Your task to perform on an android device: Open calendar and show me the third week of next month Image 0: 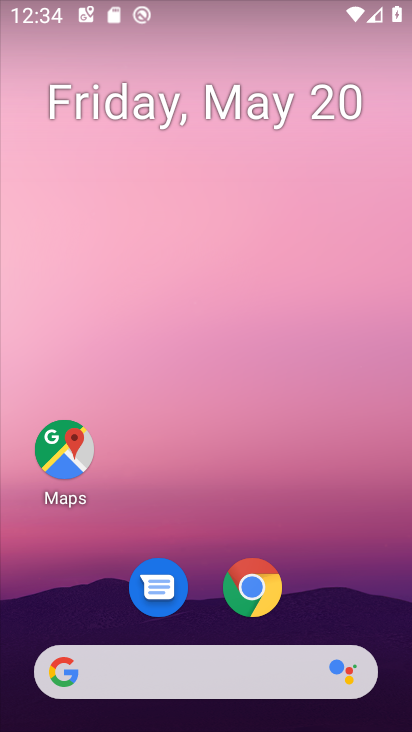
Step 0: drag from (367, 601) to (365, 219)
Your task to perform on an android device: Open calendar and show me the third week of next month Image 1: 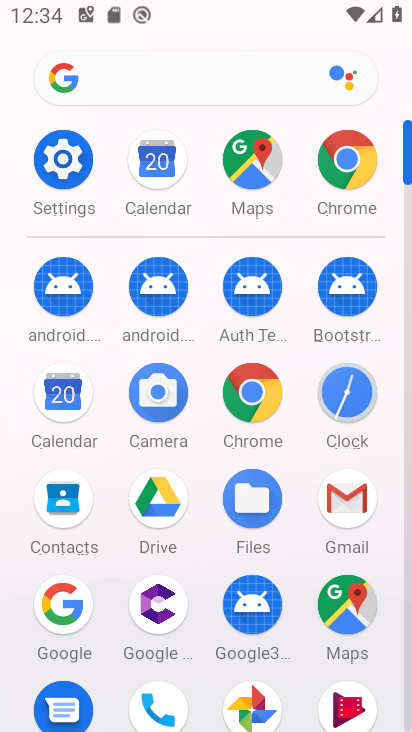
Step 1: click (51, 410)
Your task to perform on an android device: Open calendar and show me the third week of next month Image 2: 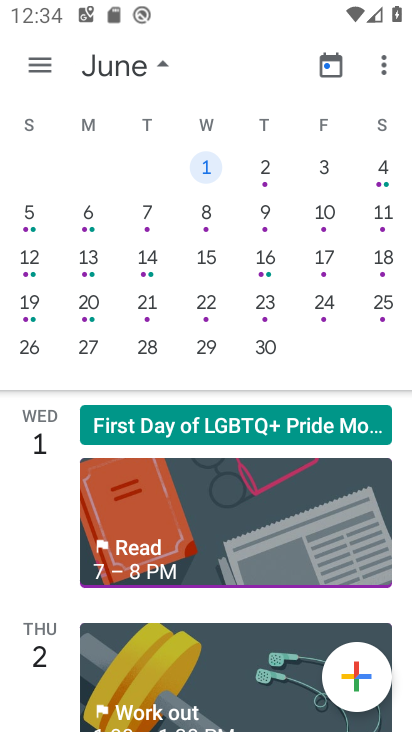
Step 2: click (94, 261)
Your task to perform on an android device: Open calendar and show me the third week of next month Image 3: 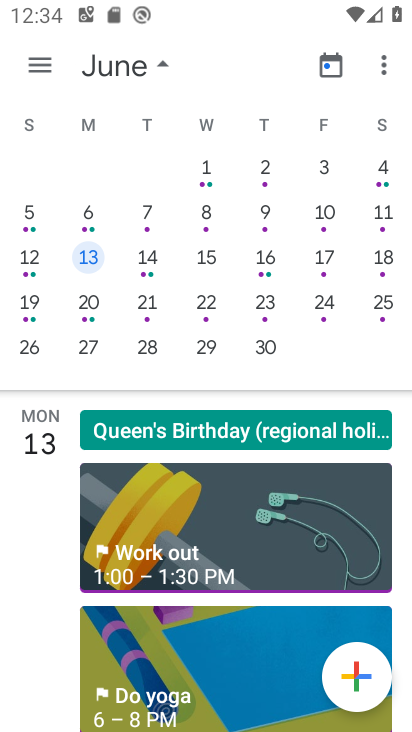
Step 3: task complete